Your task to perform on an android device: set default search engine in the chrome app Image 0: 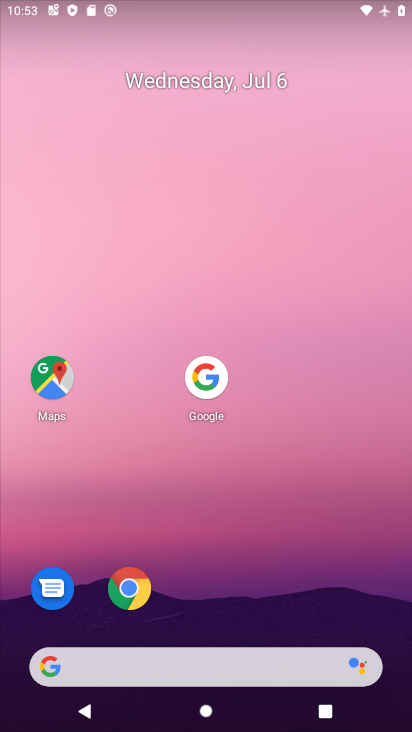
Step 0: click (137, 593)
Your task to perform on an android device: set default search engine in the chrome app Image 1: 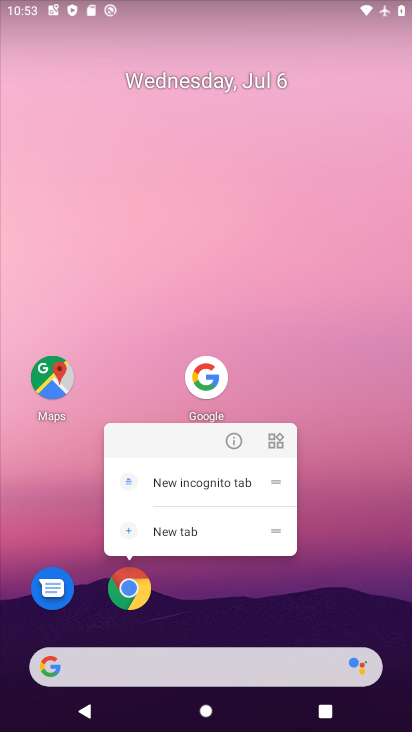
Step 1: click (113, 589)
Your task to perform on an android device: set default search engine in the chrome app Image 2: 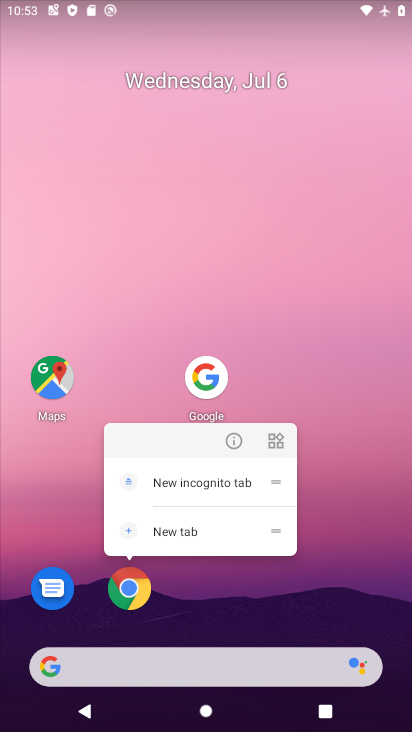
Step 2: click (125, 591)
Your task to perform on an android device: set default search engine in the chrome app Image 3: 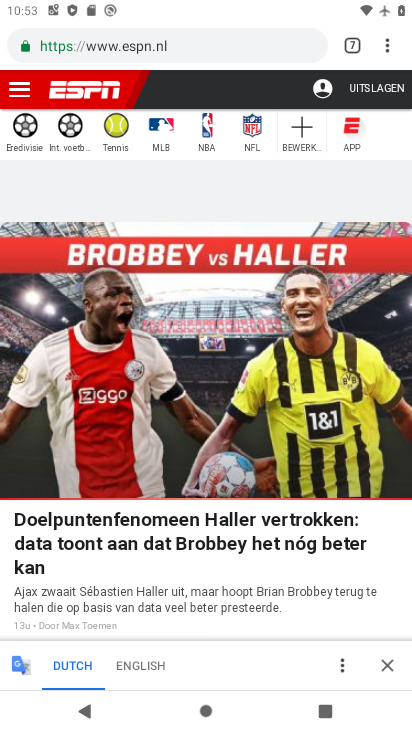
Step 3: click (388, 55)
Your task to perform on an android device: set default search engine in the chrome app Image 4: 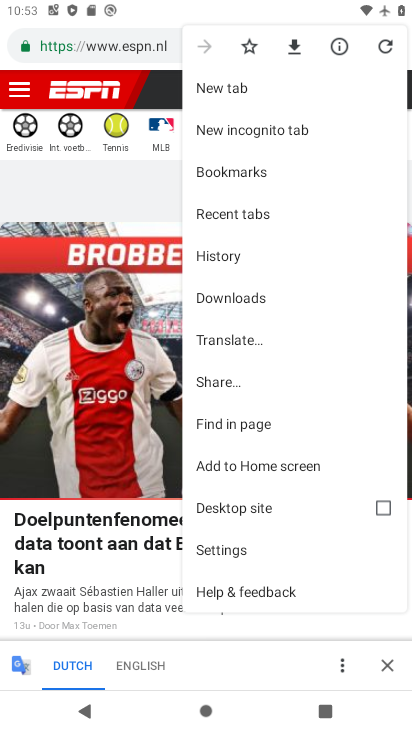
Step 4: click (227, 552)
Your task to perform on an android device: set default search engine in the chrome app Image 5: 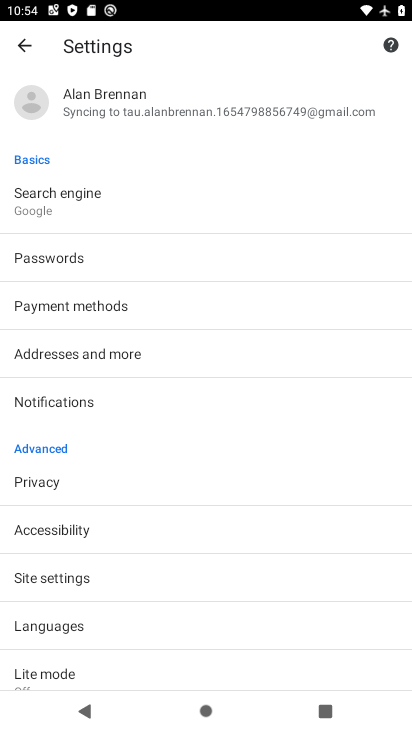
Step 5: click (97, 197)
Your task to perform on an android device: set default search engine in the chrome app Image 6: 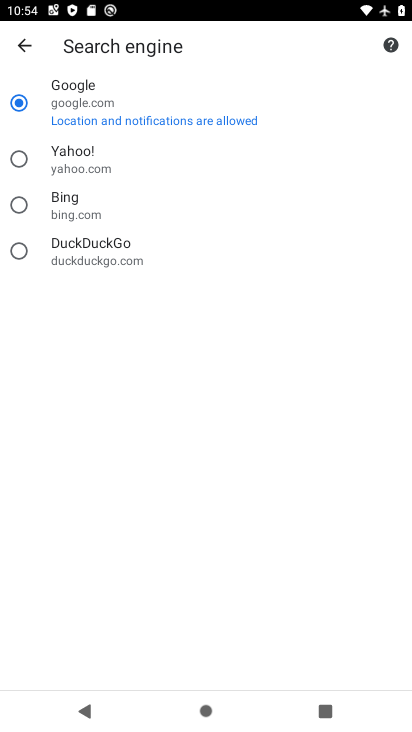
Step 6: task complete